Your task to perform on an android device: Open display settings Image 0: 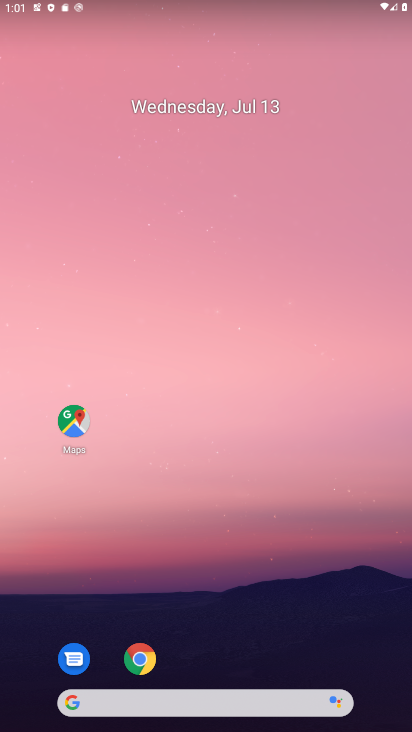
Step 0: drag from (219, 648) to (236, 115)
Your task to perform on an android device: Open display settings Image 1: 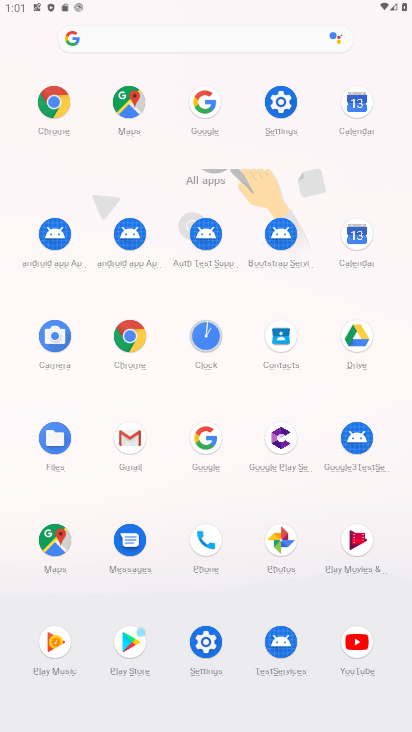
Step 1: click (277, 99)
Your task to perform on an android device: Open display settings Image 2: 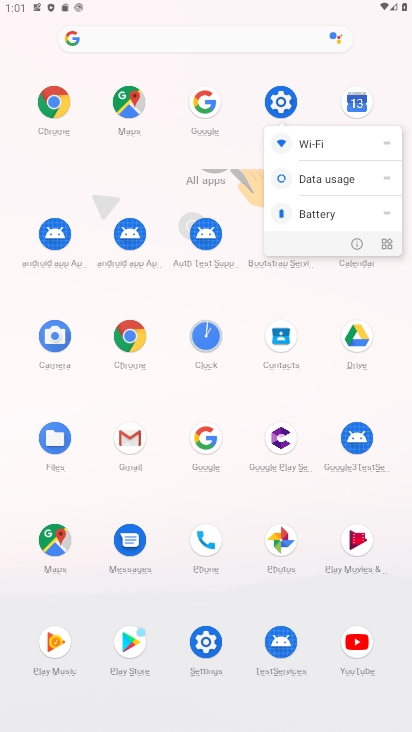
Step 2: click (279, 102)
Your task to perform on an android device: Open display settings Image 3: 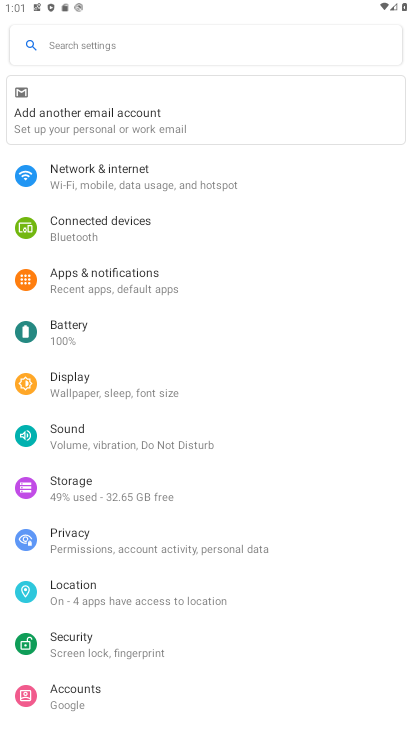
Step 3: click (96, 387)
Your task to perform on an android device: Open display settings Image 4: 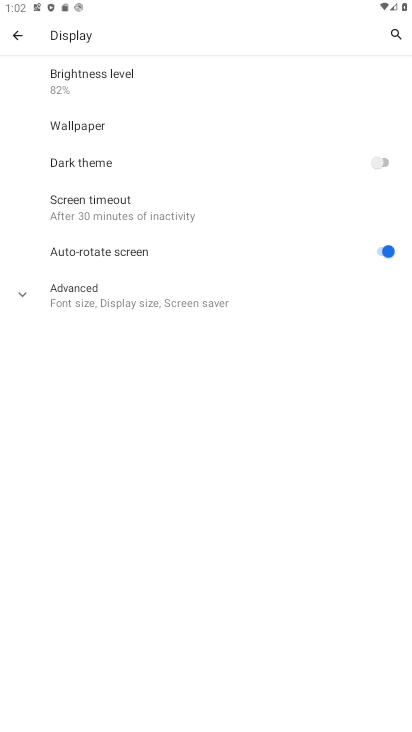
Step 4: task complete